Your task to perform on an android device: Go to Yahoo.com Image 0: 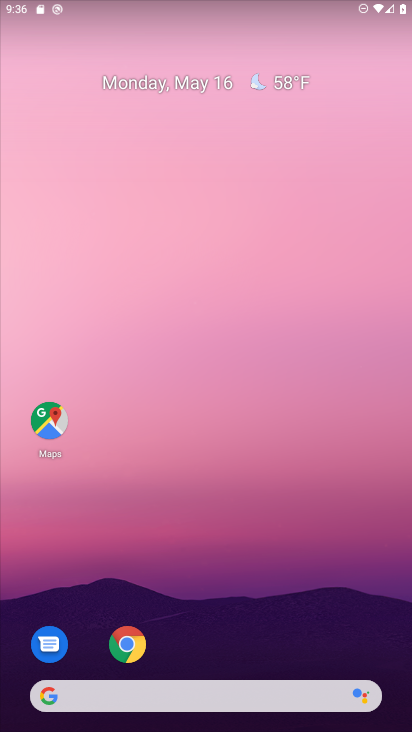
Step 0: click (140, 656)
Your task to perform on an android device: Go to Yahoo.com Image 1: 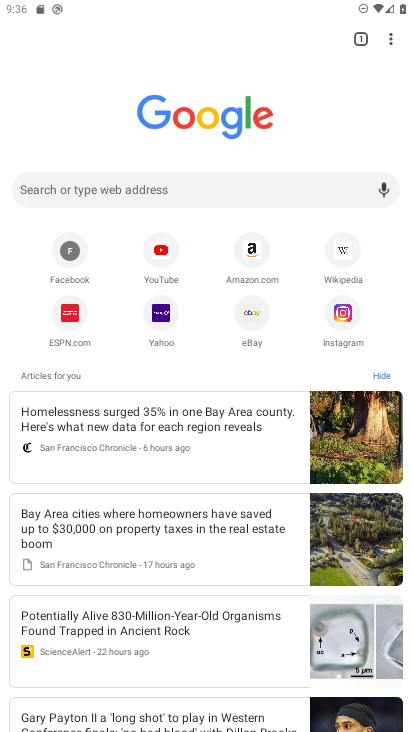
Step 1: click (158, 329)
Your task to perform on an android device: Go to Yahoo.com Image 2: 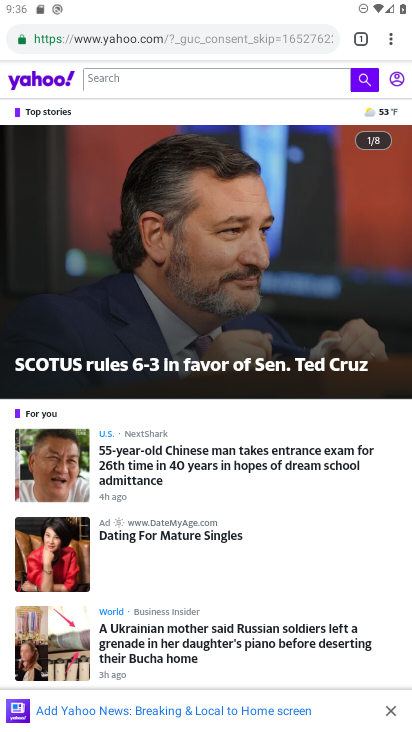
Step 2: task complete